Your task to perform on an android device: Go to display settings Image 0: 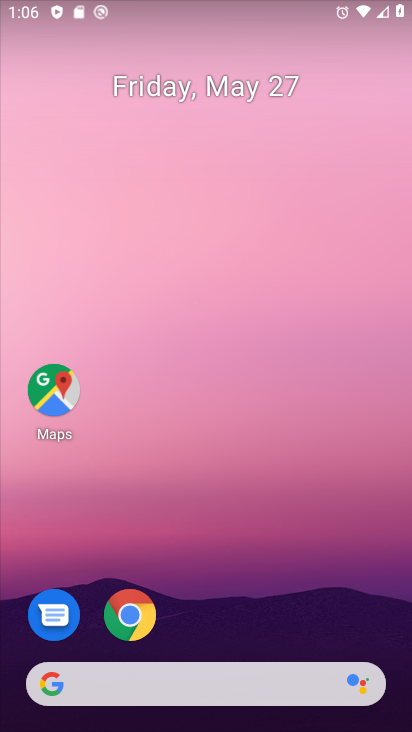
Step 0: press home button
Your task to perform on an android device: Go to display settings Image 1: 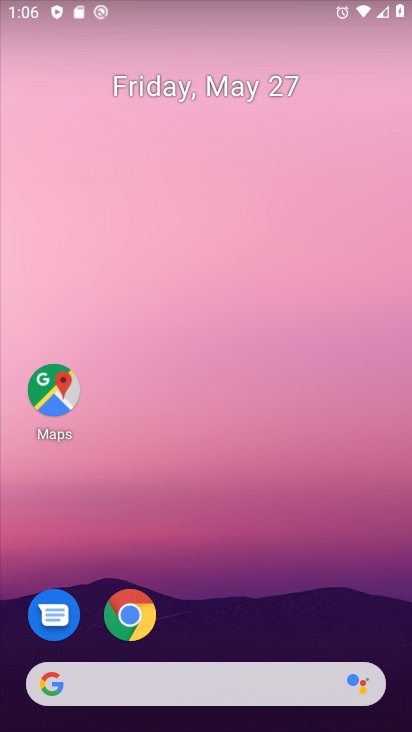
Step 1: drag from (310, 631) to (298, 94)
Your task to perform on an android device: Go to display settings Image 2: 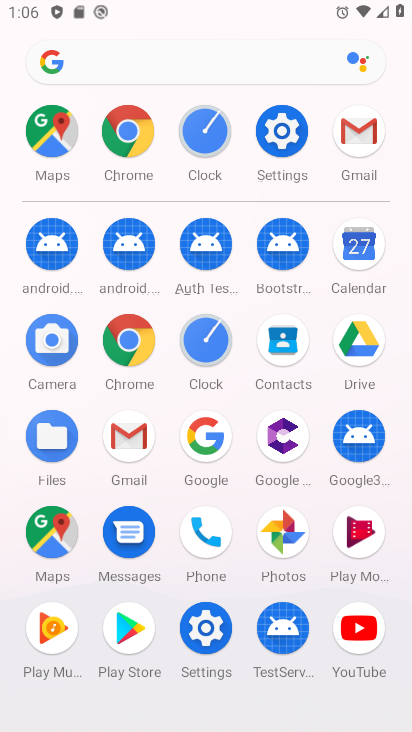
Step 2: click (289, 127)
Your task to perform on an android device: Go to display settings Image 3: 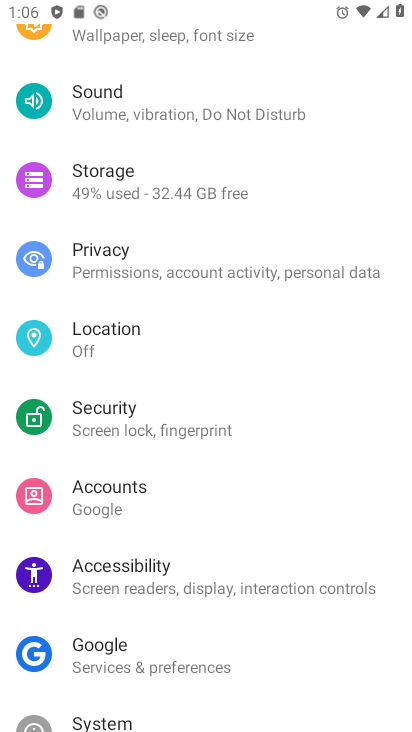
Step 3: drag from (274, 312) to (273, 642)
Your task to perform on an android device: Go to display settings Image 4: 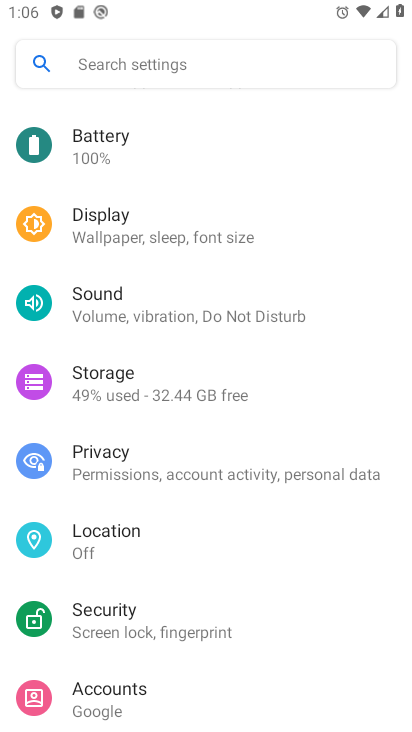
Step 4: click (99, 229)
Your task to perform on an android device: Go to display settings Image 5: 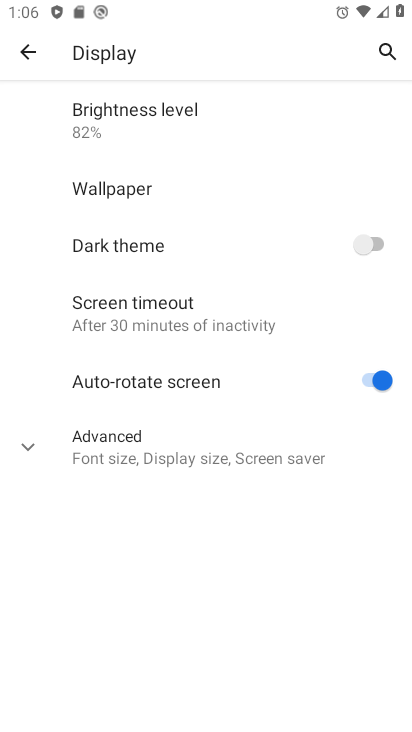
Step 5: task complete